Your task to perform on an android device: uninstall "Mercado Libre" Image 0: 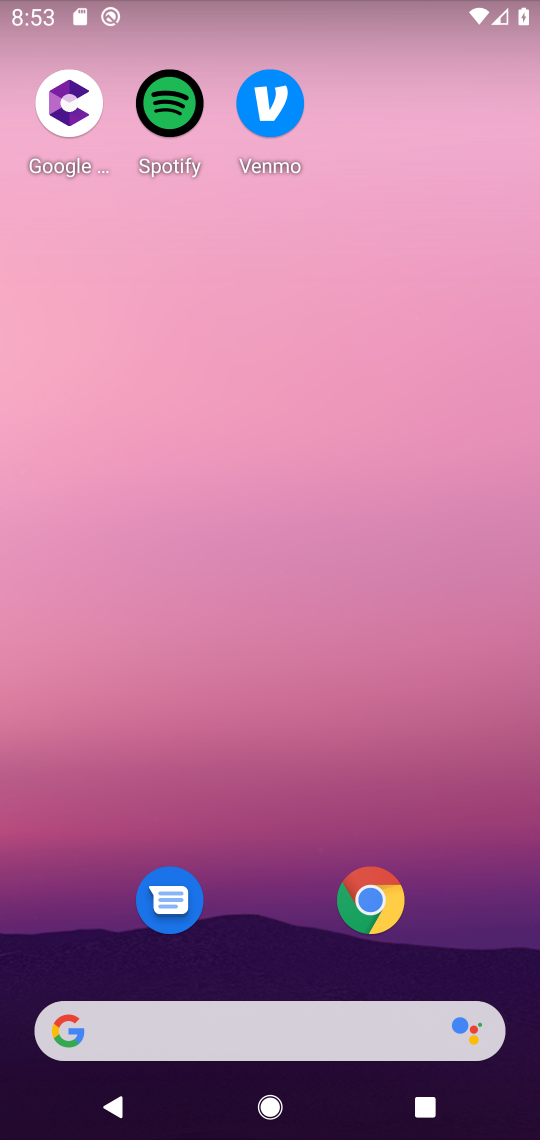
Step 0: drag from (284, 975) to (279, 377)
Your task to perform on an android device: uninstall "Mercado Libre" Image 1: 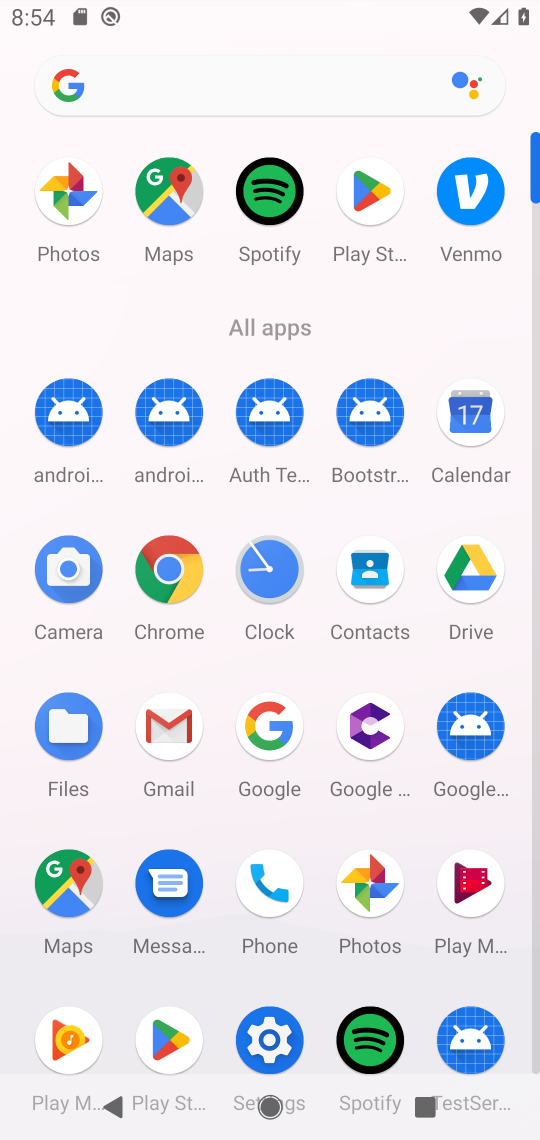
Step 1: click (392, 209)
Your task to perform on an android device: uninstall "Mercado Libre" Image 2: 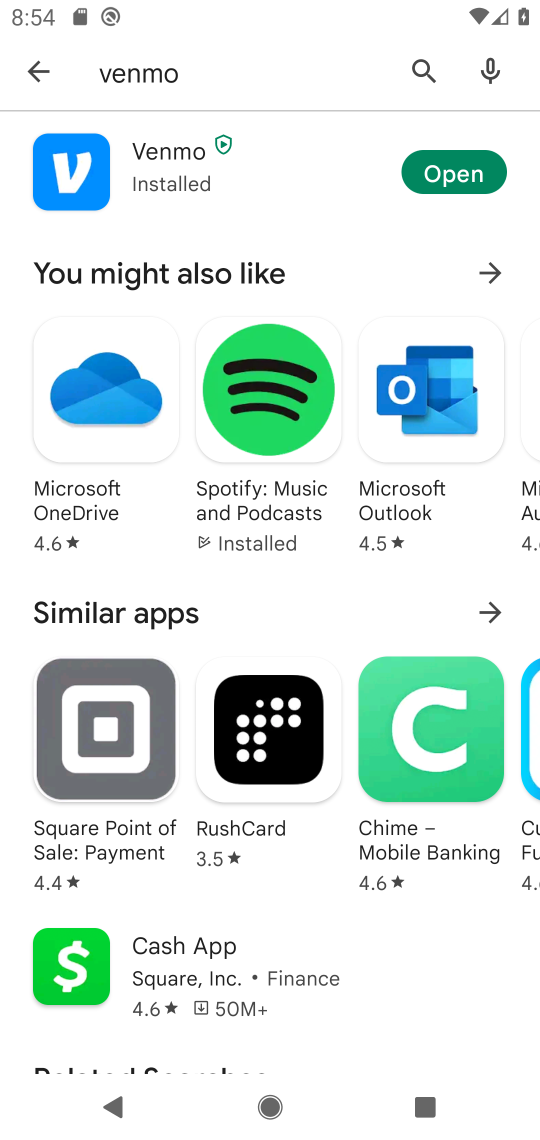
Step 2: click (28, 57)
Your task to perform on an android device: uninstall "Mercado Libre" Image 3: 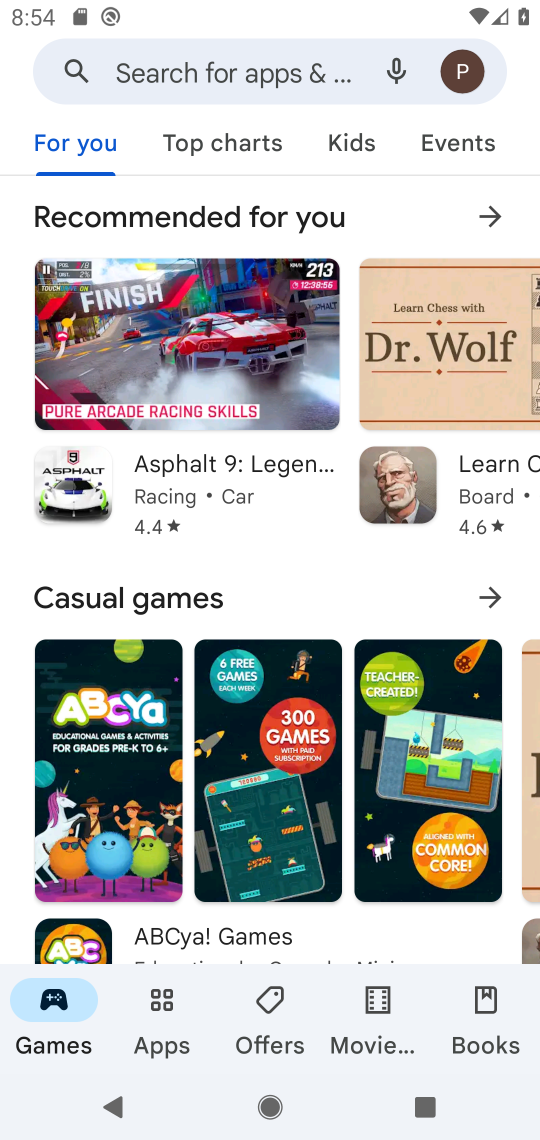
Step 3: click (236, 78)
Your task to perform on an android device: uninstall "Mercado Libre" Image 4: 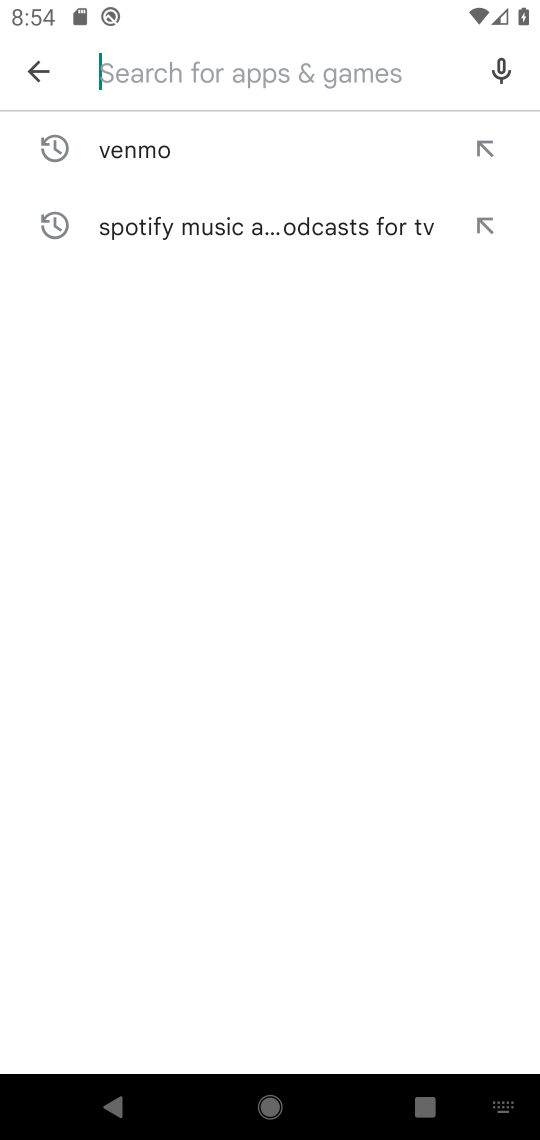
Step 4: type "Mercado Libre"
Your task to perform on an android device: uninstall "Mercado Libre" Image 5: 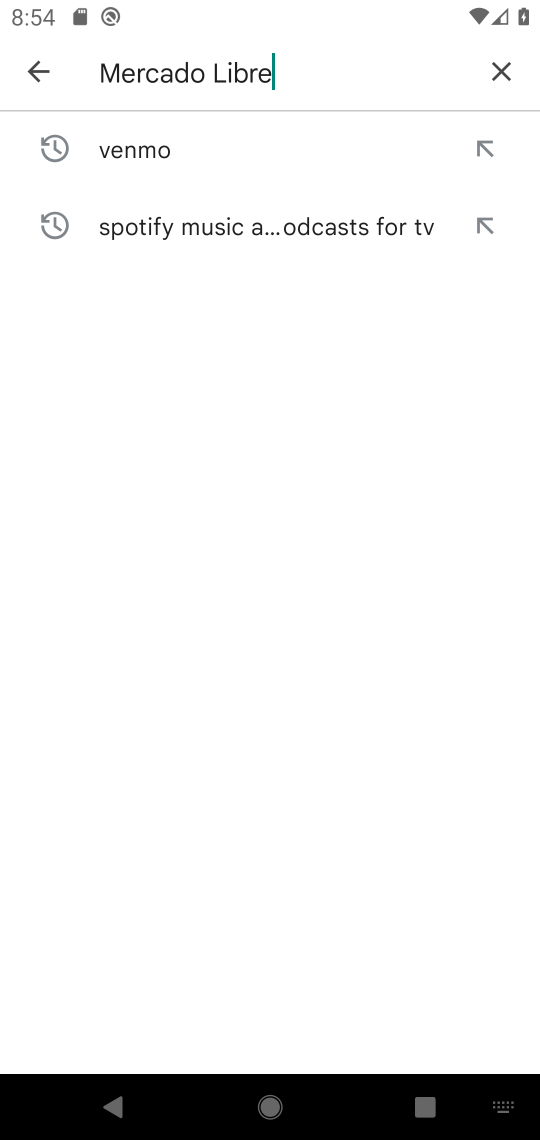
Step 5: type ""
Your task to perform on an android device: uninstall "Mercado Libre" Image 6: 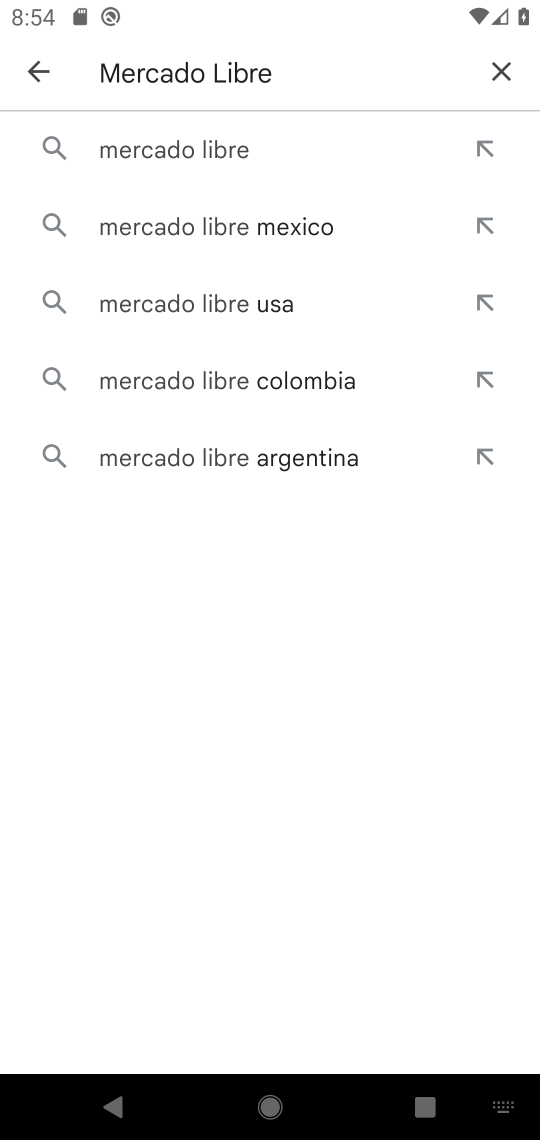
Step 6: click (336, 156)
Your task to perform on an android device: uninstall "Mercado Libre" Image 7: 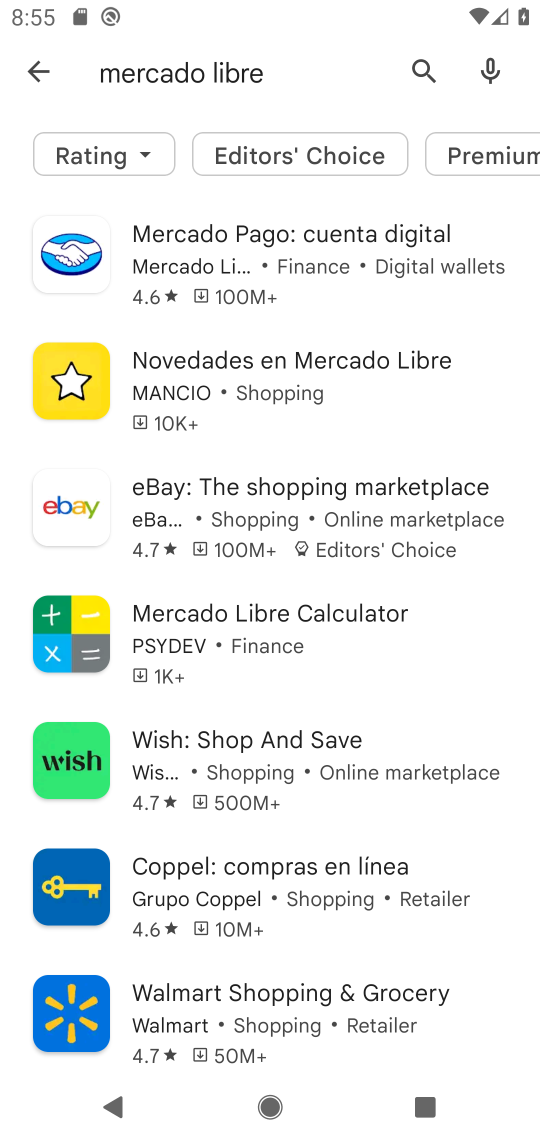
Step 7: click (247, 267)
Your task to perform on an android device: uninstall "Mercado Libre" Image 8: 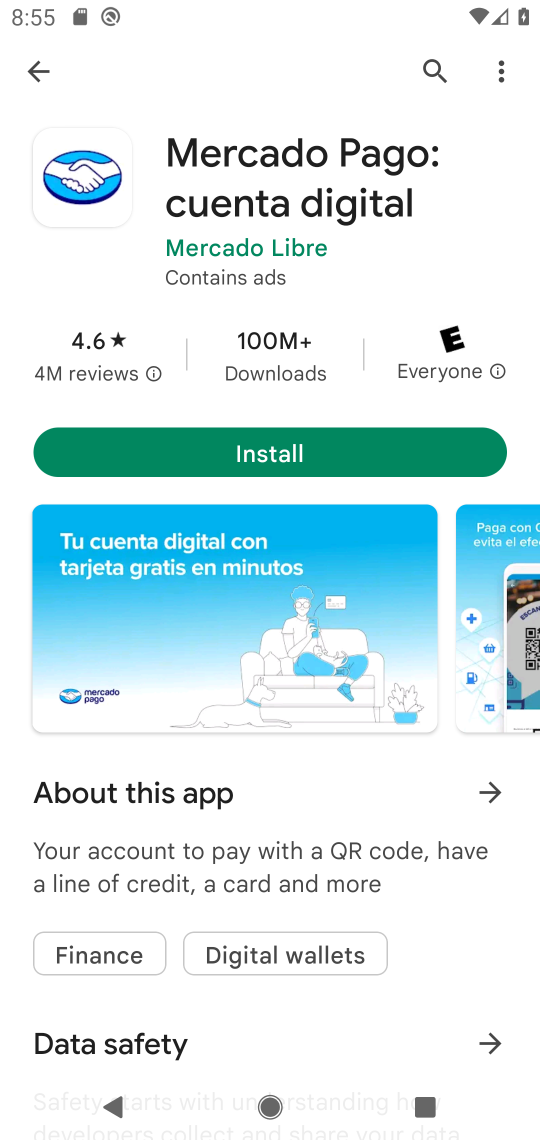
Step 8: task complete